Your task to perform on an android device: open app "Upside-Cash back on gas & food" (install if not already installed), go to login, and select forgot password Image 0: 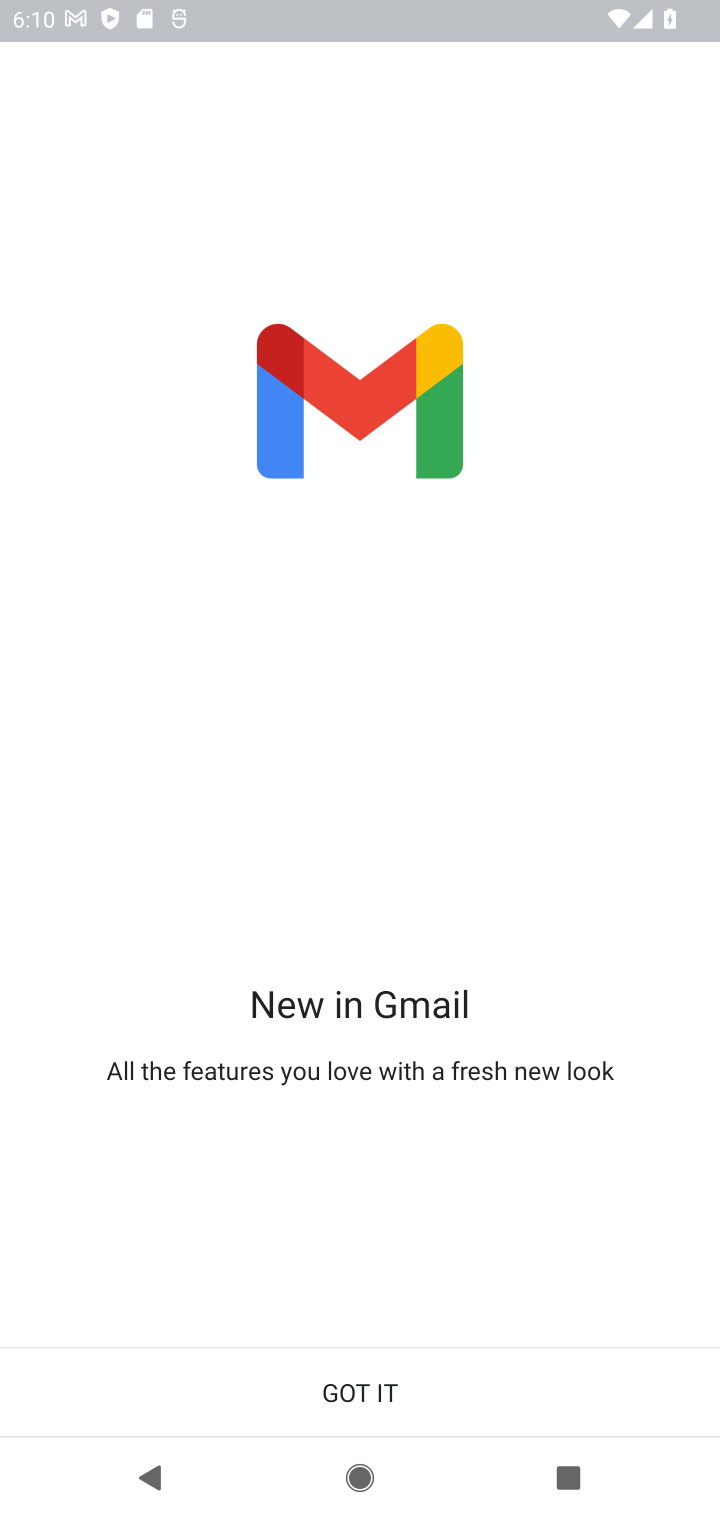
Step 0: press home button
Your task to perform on an android device: open app "Upside-Cash back on gas & food" (install if not already installed), go to login, and select forgot password Image 1: 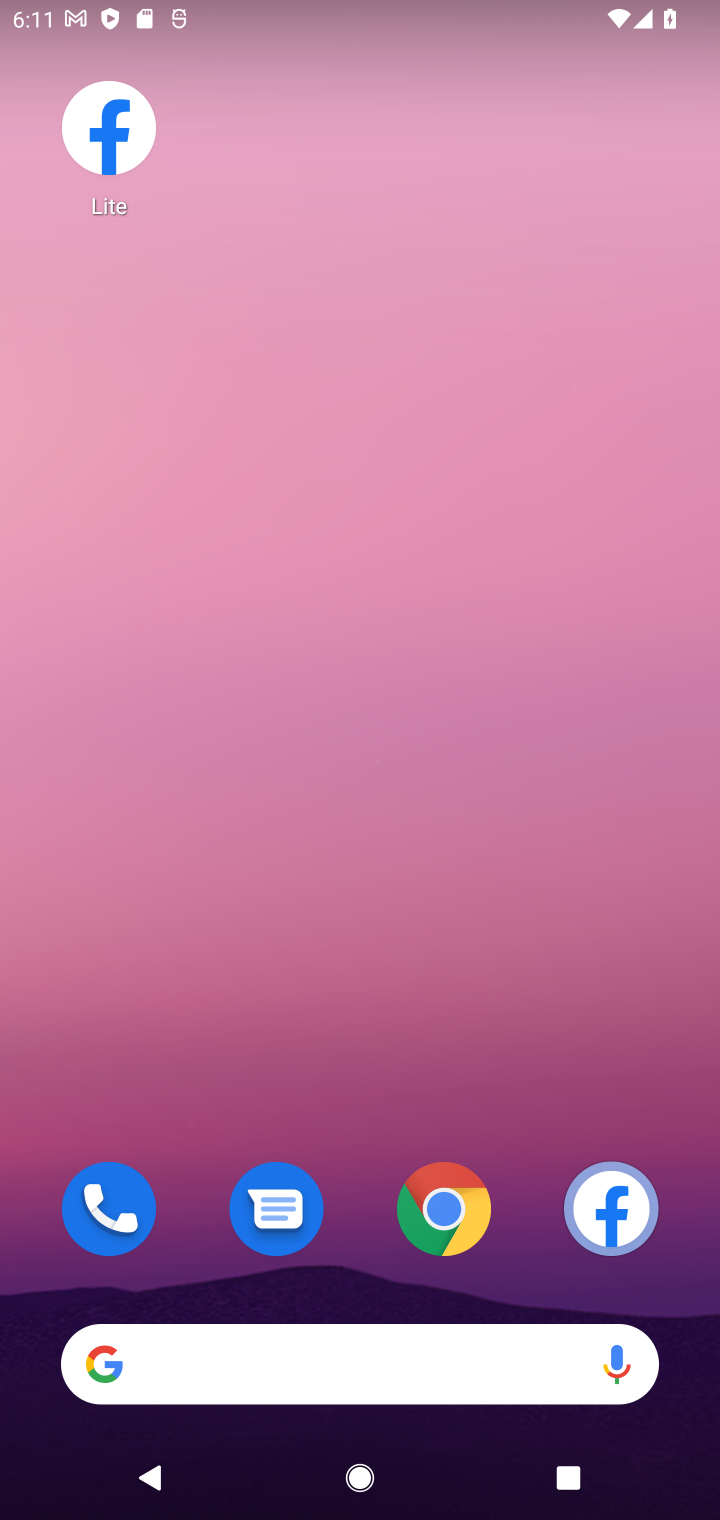
Step 1: drag from (551, 1112) to (537, 266)
Your task to perform on an android device: open app "Upside-Cash back on gas & food" (install if not already installed), go to login, and select forgot password Image 2: 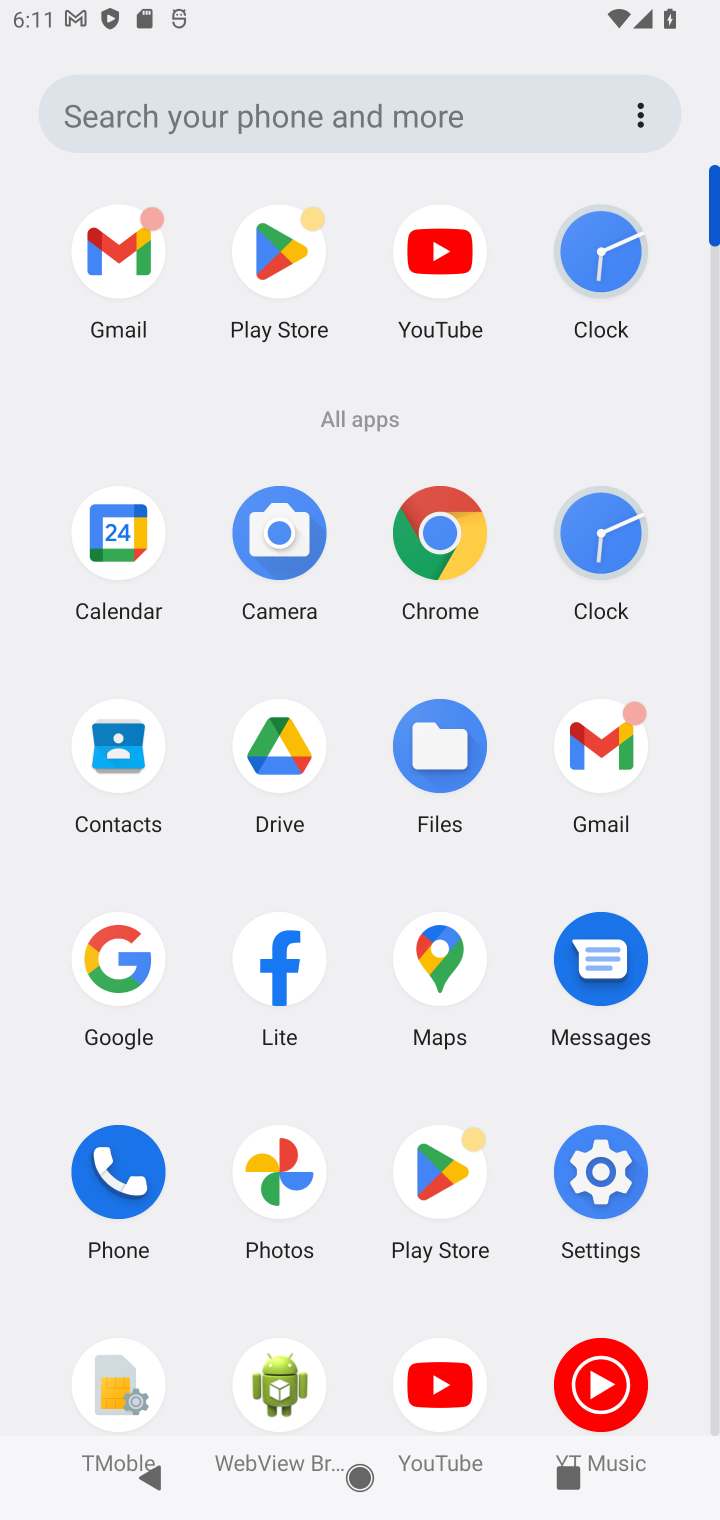
Step 2: click (252, 263)
Your task to perform on an android device: open app "Upside-Cash back on gas & food" (install if not already installed), go to login, and select forgot password Image 3: 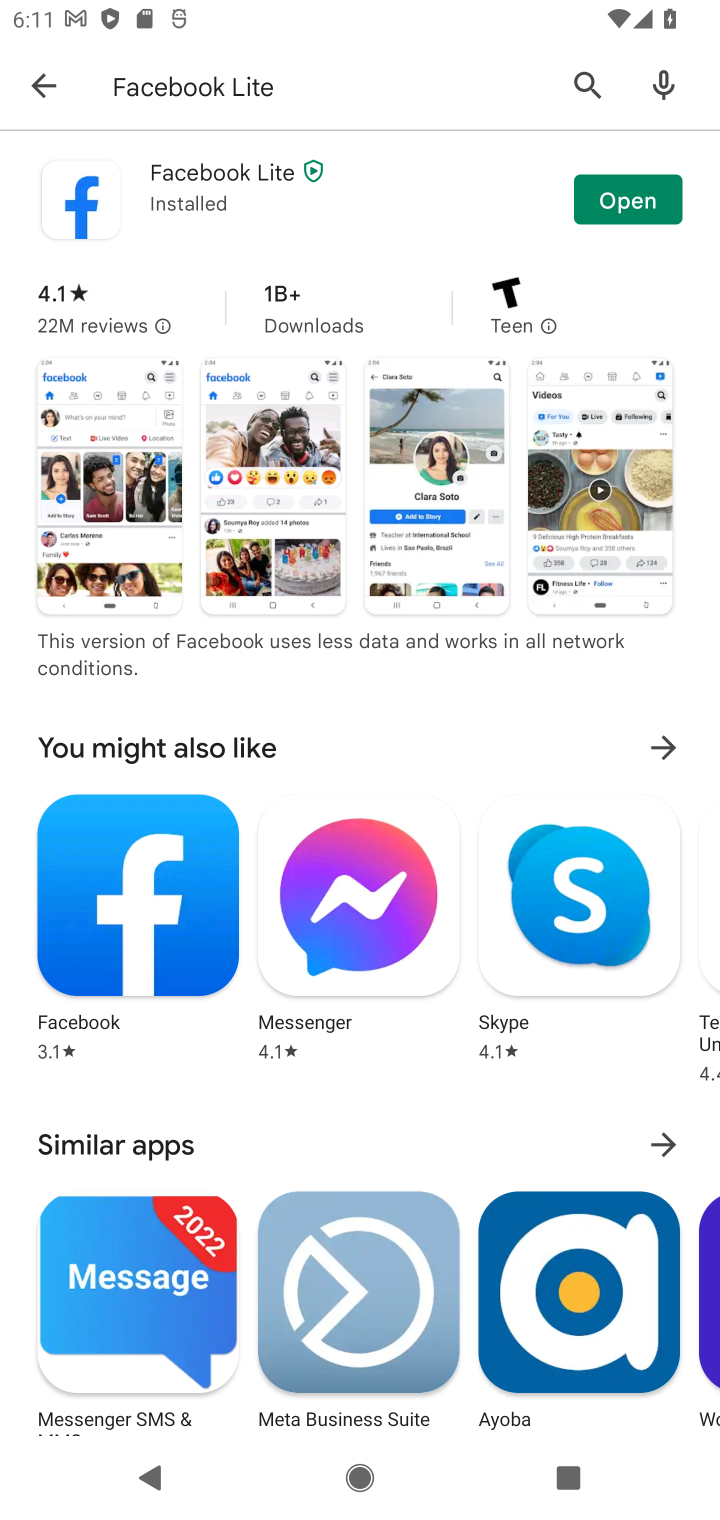
Step 3: press back button
Your task to perform on an android device: open app "Upside-Cash back on gas & food" (install if not already installed), go to login, and select forgot password Image 4: 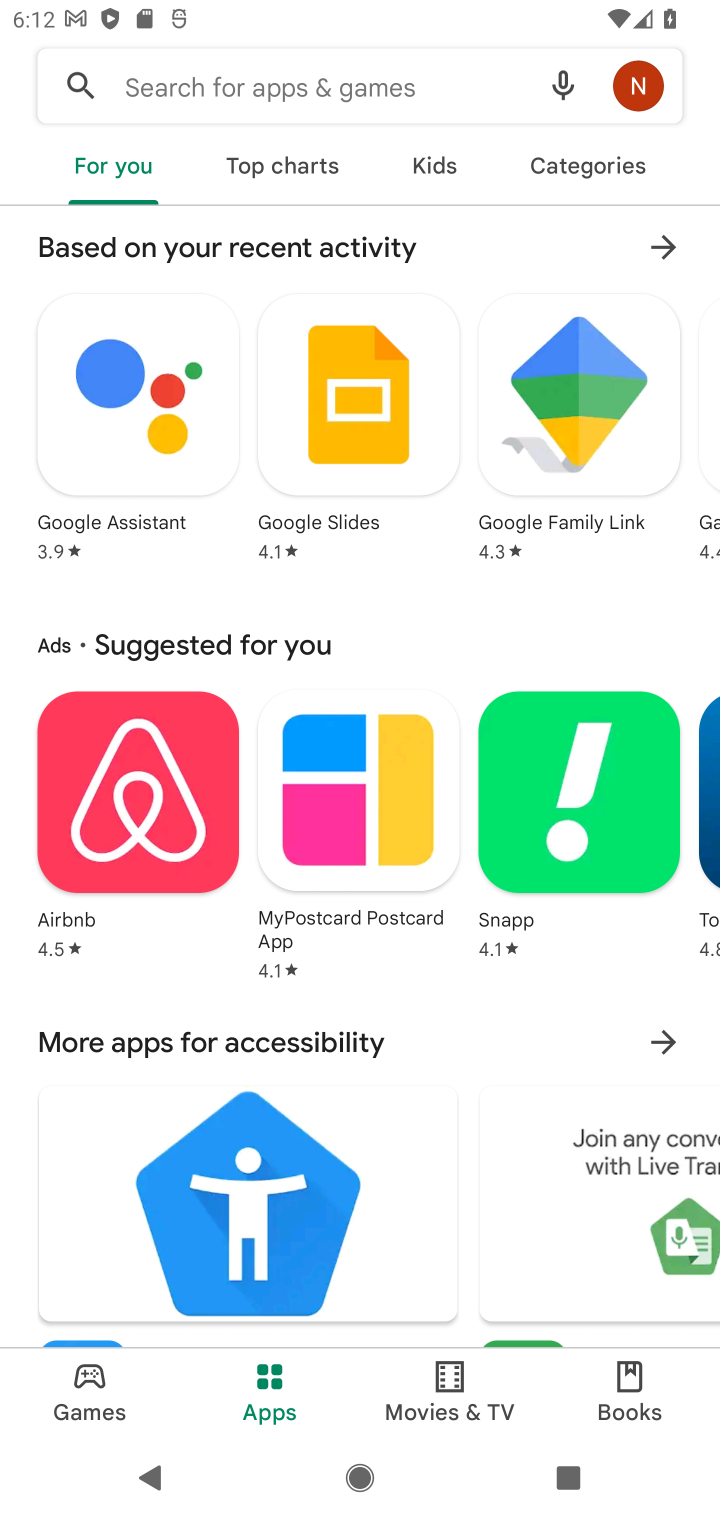
Step 4: type ""Upside-Cash back on gas & food"
Your task to perform on an android device: open app "Upside-Cash back on gas & food" (install if not already installed), go to login, and select forgot password Image 5: 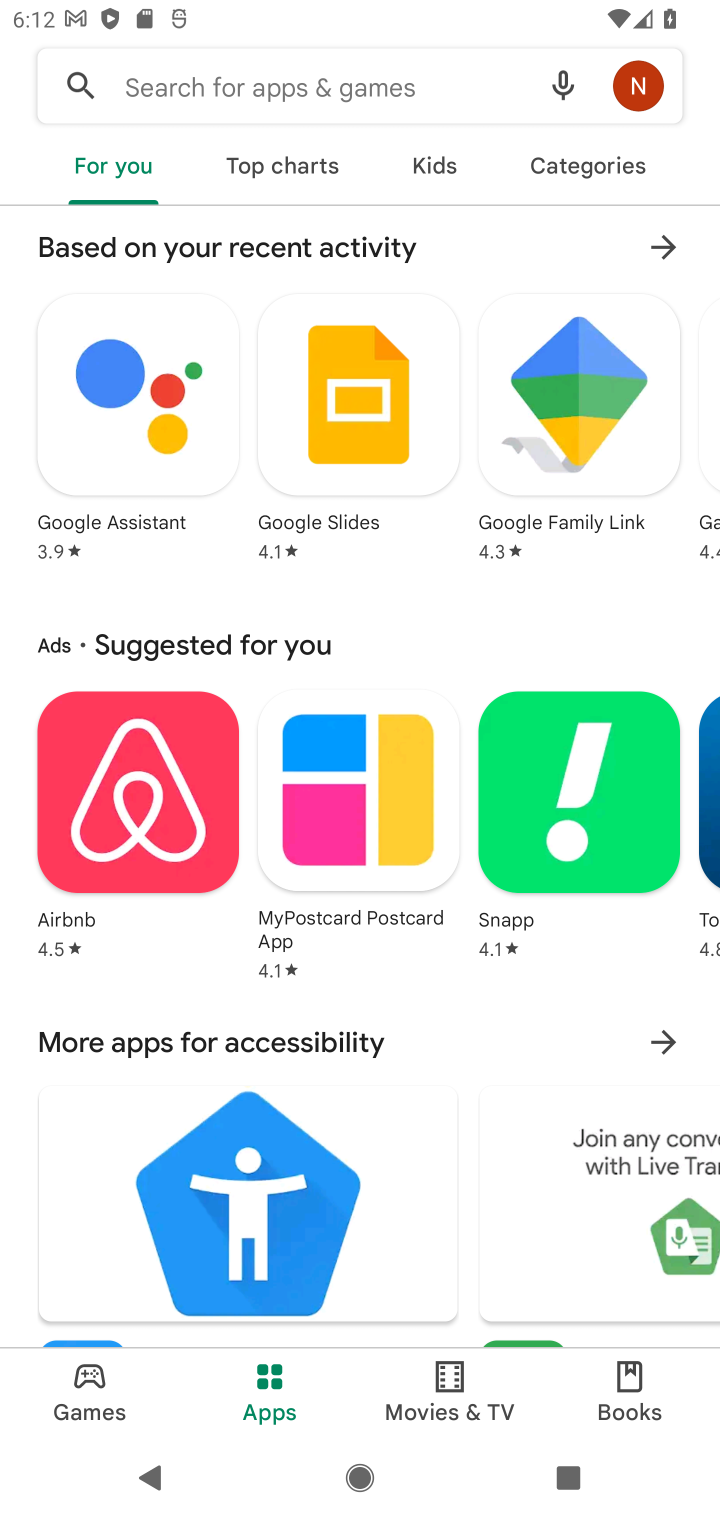
Step 5: press enter
Your task to perform on an android device: open app "Upside-Cash back on gas & food" (install if not already installed), go to login, and select forgot password Image 6: 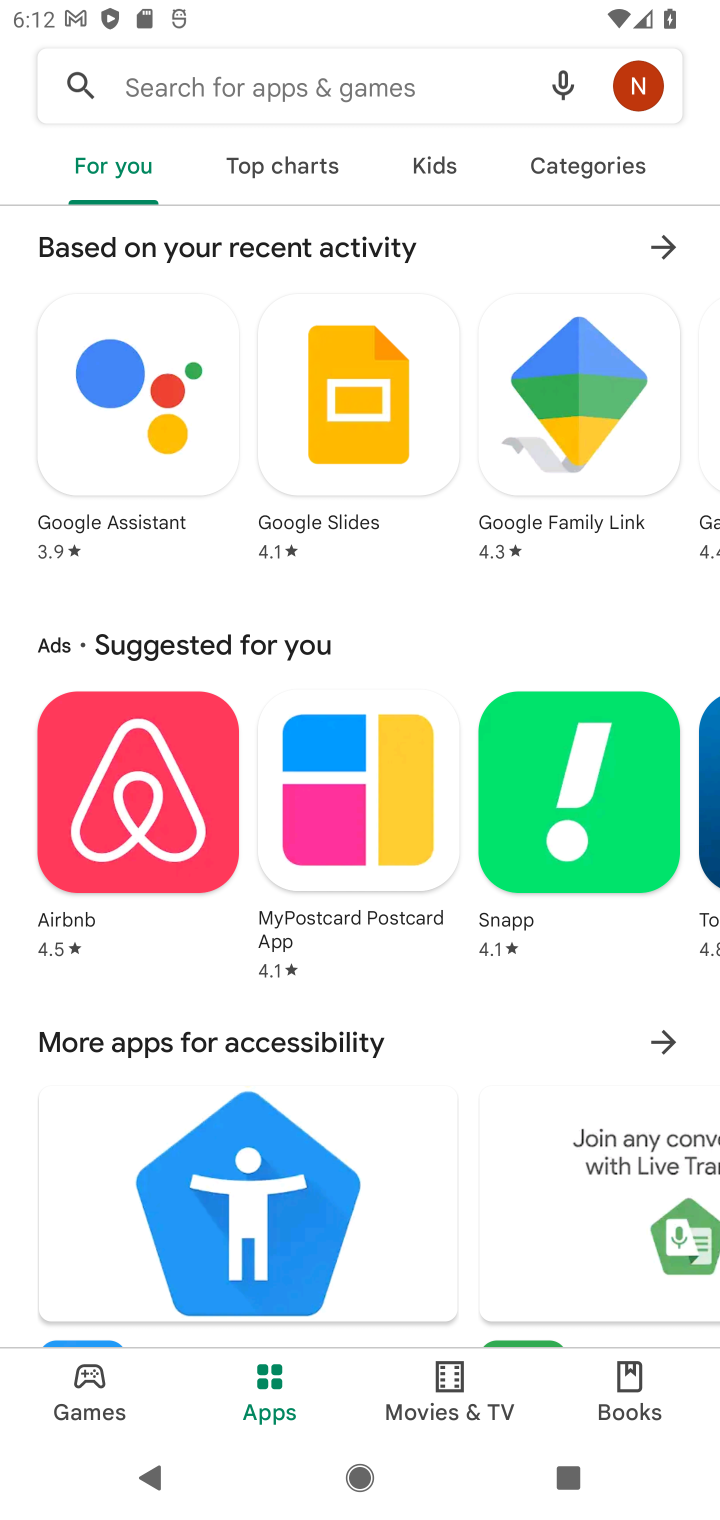
Step 6: click (197, 105)
Your task to perform on an android device: open app "Upside-Cash back on gas & food" (install if not already installed), go to login, and select forgot password Image 7: 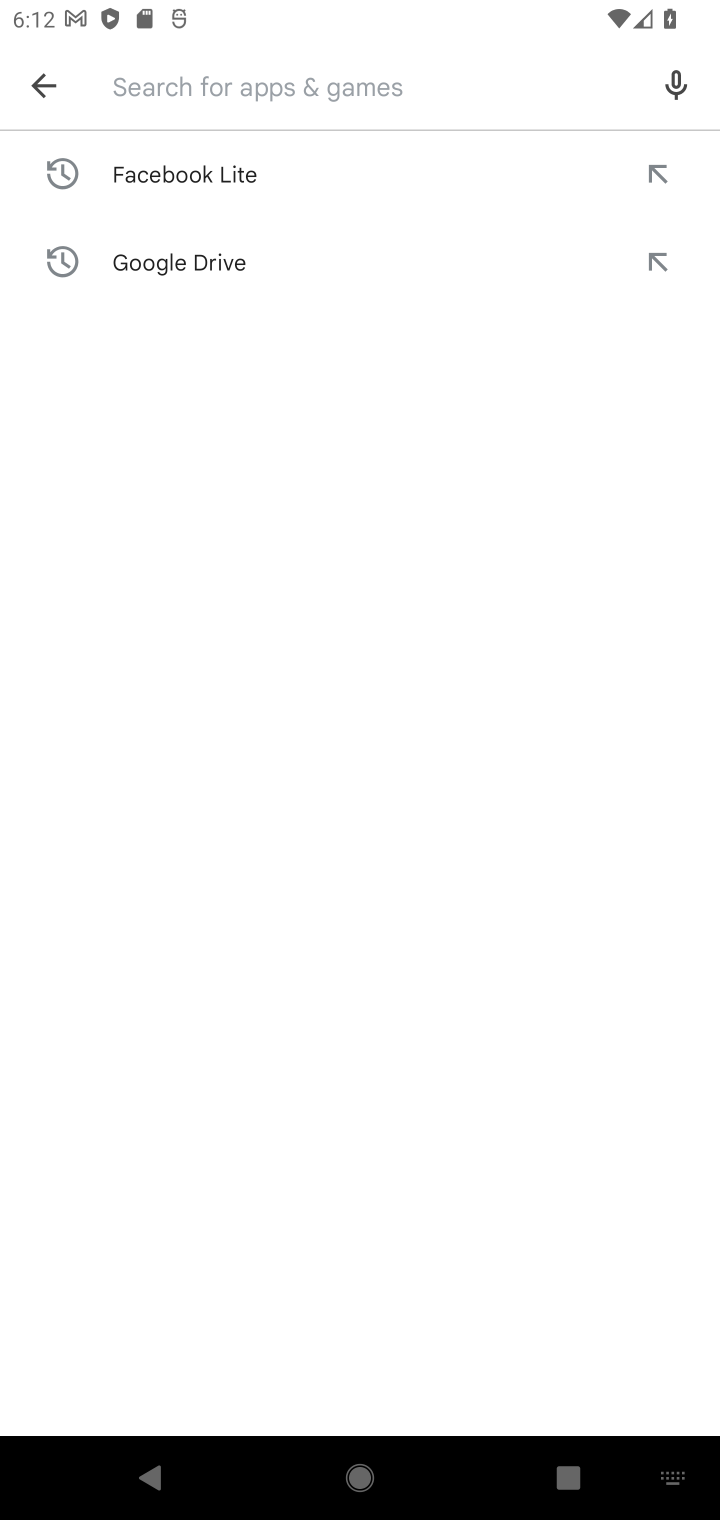
Step 7: type "Upside-Cash back on gas & food"
Your task to perform on an android device: open app "Upside-Cash back on gas & food" (install if not already installed), go to login, and select forgot password Image 8: 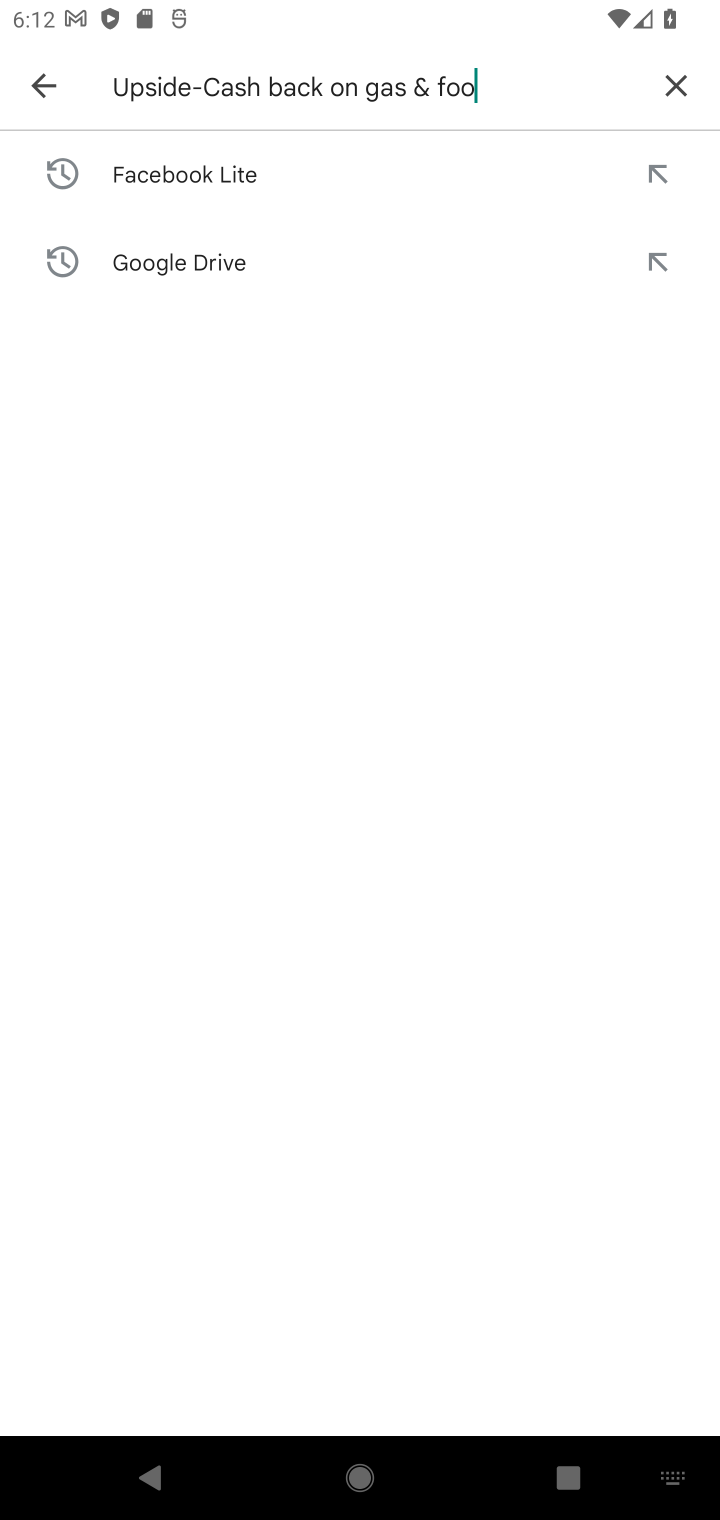
Step 8: press enter
Your task to perform on an android device: open app "Upside-Cash back on gas & food" (install if not already installed), go to login, and select forgot password Image 9: 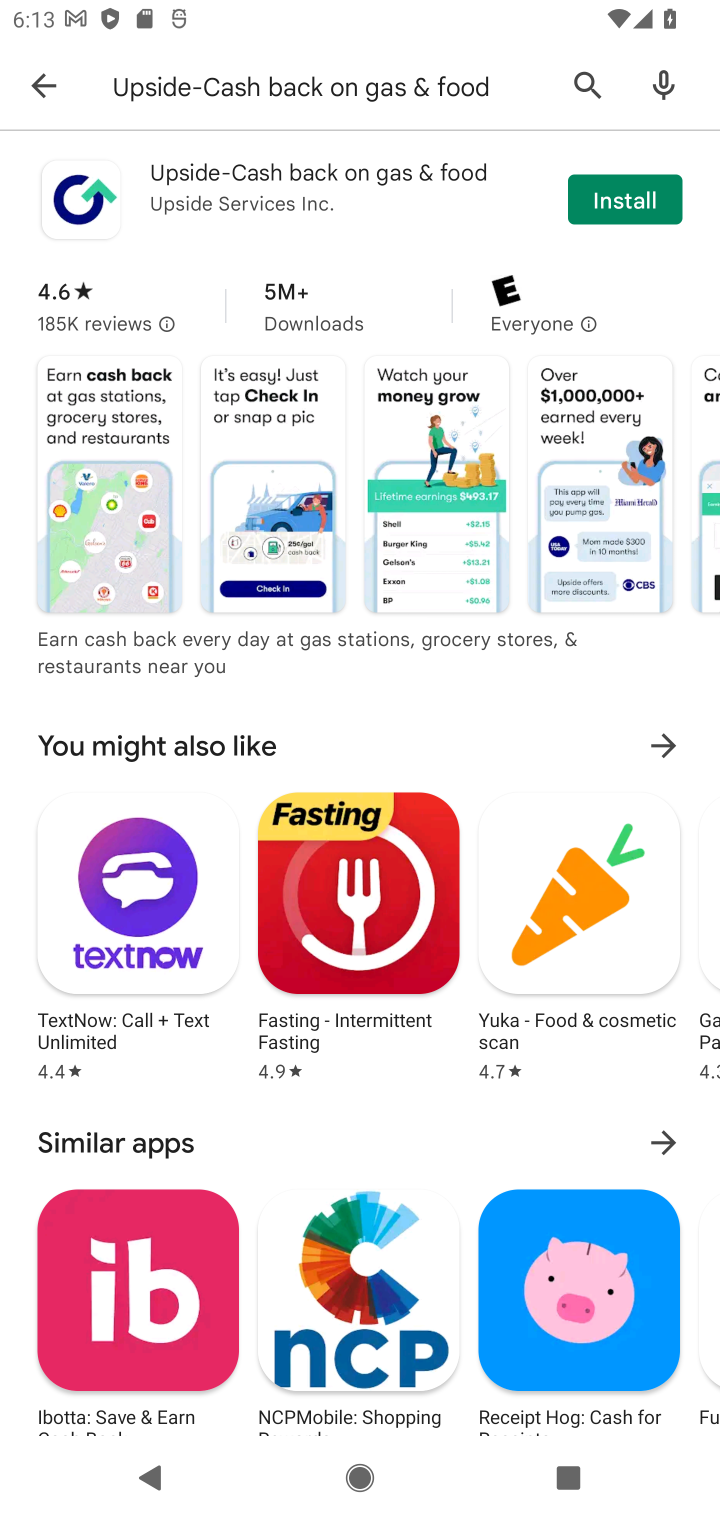
Step 9: click (636, 198)
Your task to perform on an android device: open app "Upside-Cash back on gas & food" (install if not already installed), go to login, and select forgot password Image 10: 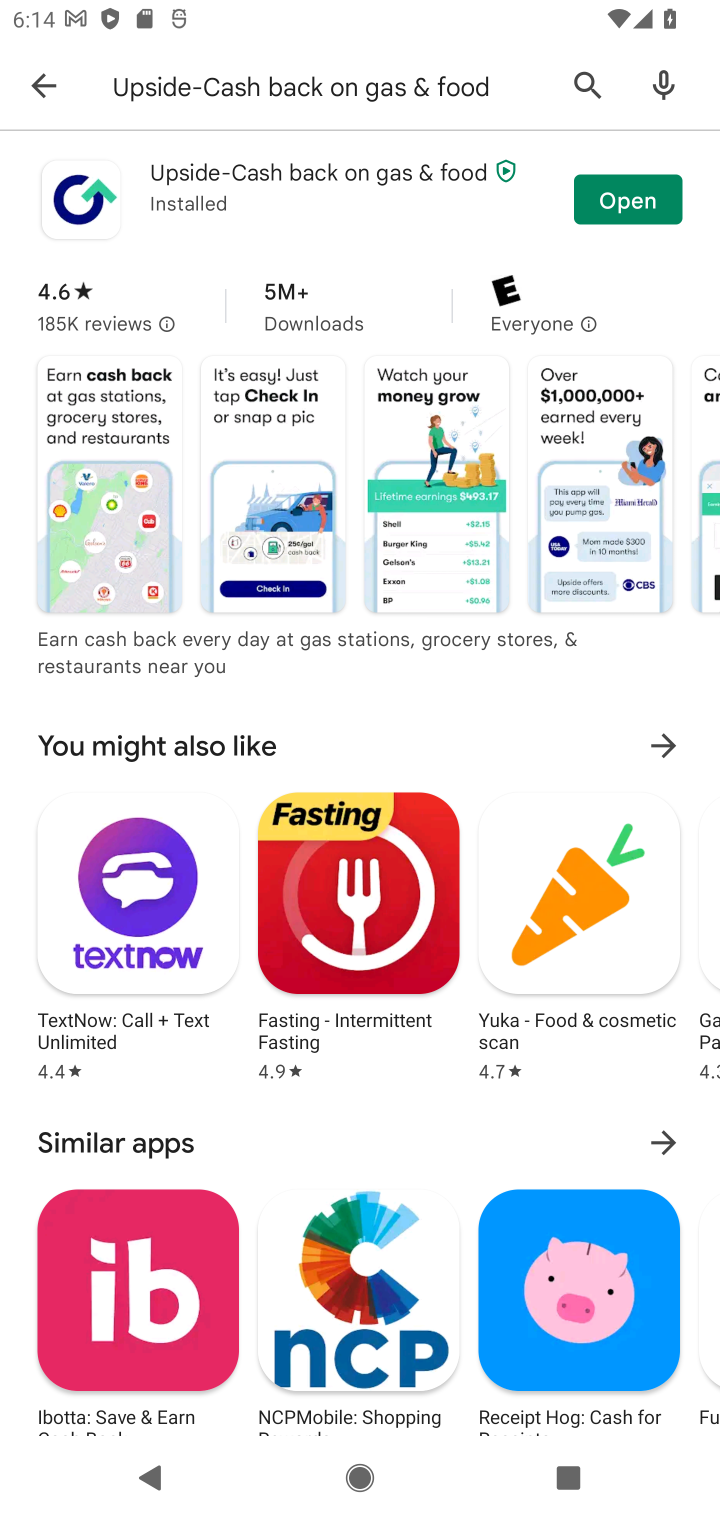
Step 10: click (593, 202)
Your task to perform on an android device: open app "Upside-Cash back on gas & food" (install if not already installed), go to login, and select forgot password Image 11: 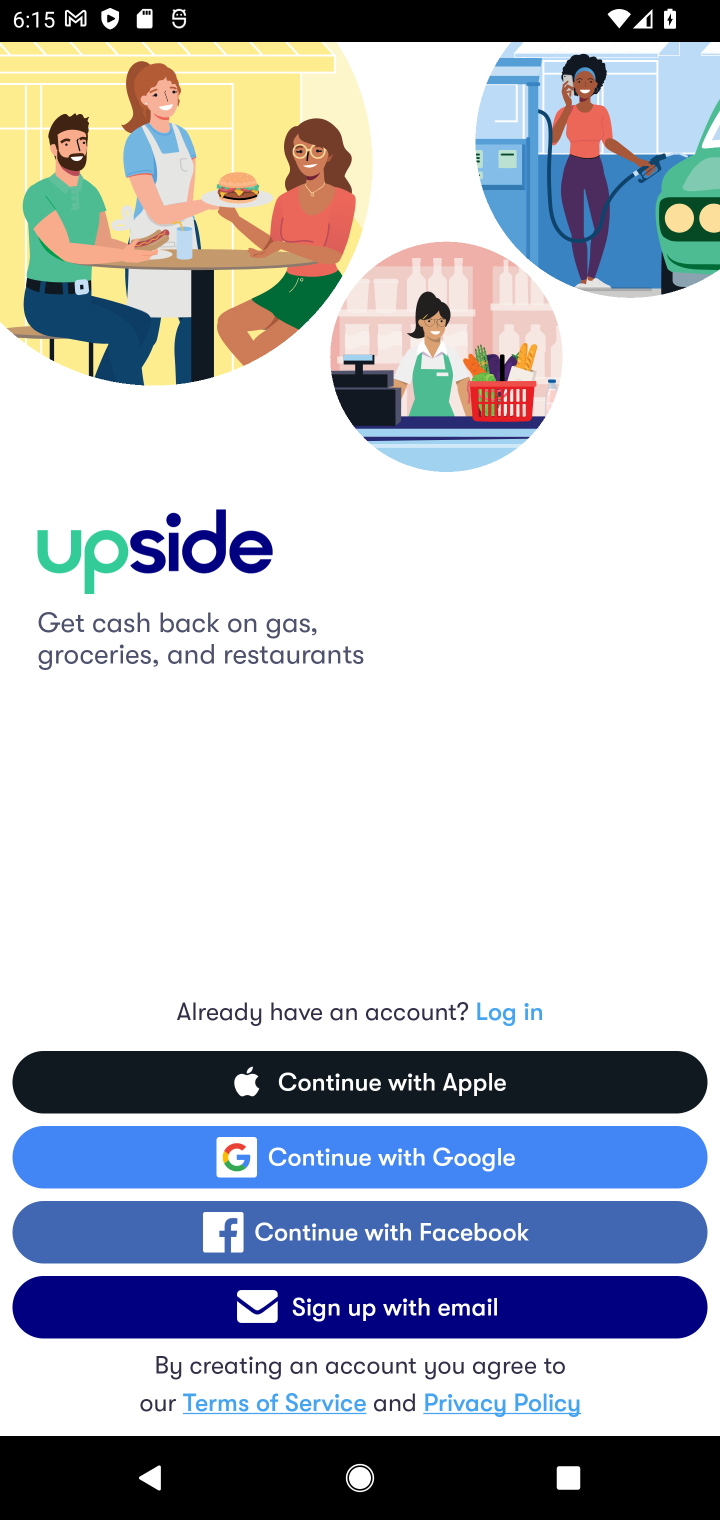
Step 11: click (367, 1239)
Your task to perform on an android device: open app "Upside-Cash back on gas & food" (install if not already installed), go to login, and select forgot password Image 12: 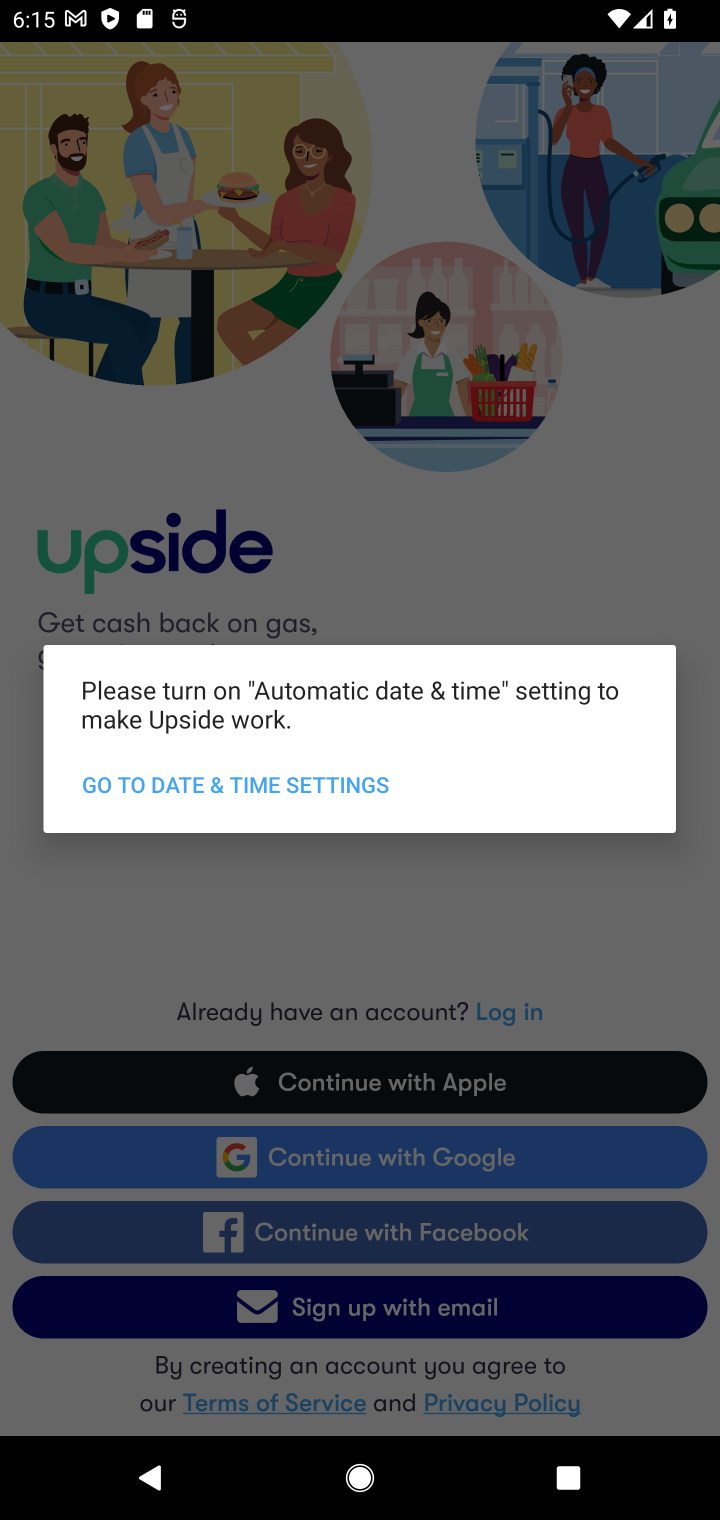
Step 12: click (253, 789)
Your task to perform on an android device: open app "Upside-Cash back on gas & food" (install if not already installed), go to login, and select forgot password Image 13: 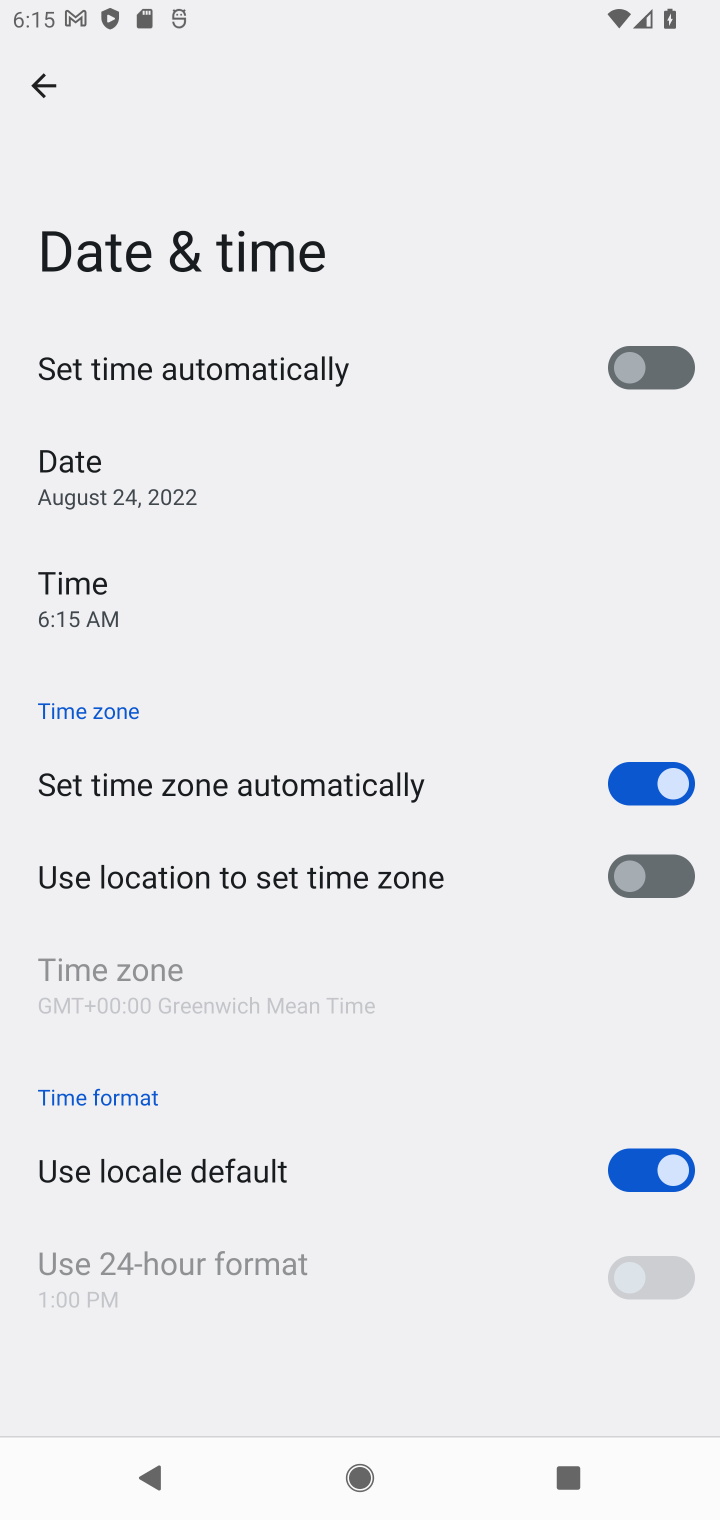
Step 13: press back button
Your task to perform on an android device: open app "Upside-Cash back on gas & food" (install if not already installed), go to login, and select forgot password Image 14: 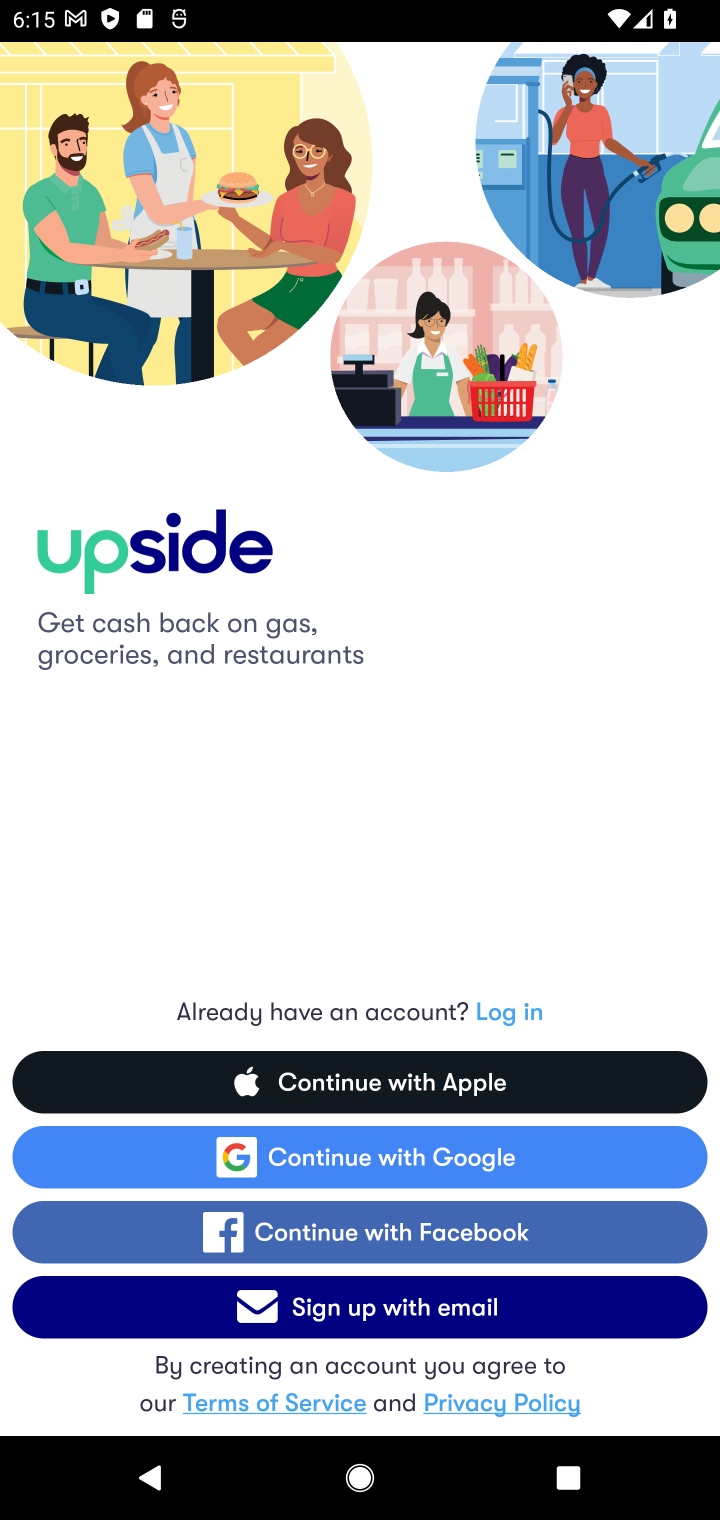
Step 14: click (448, 1246)
Your task to perform on an android device: open app "Upside-Cash back on gas & food" (install if not already installed), go to login, and select forgot password Image 15: 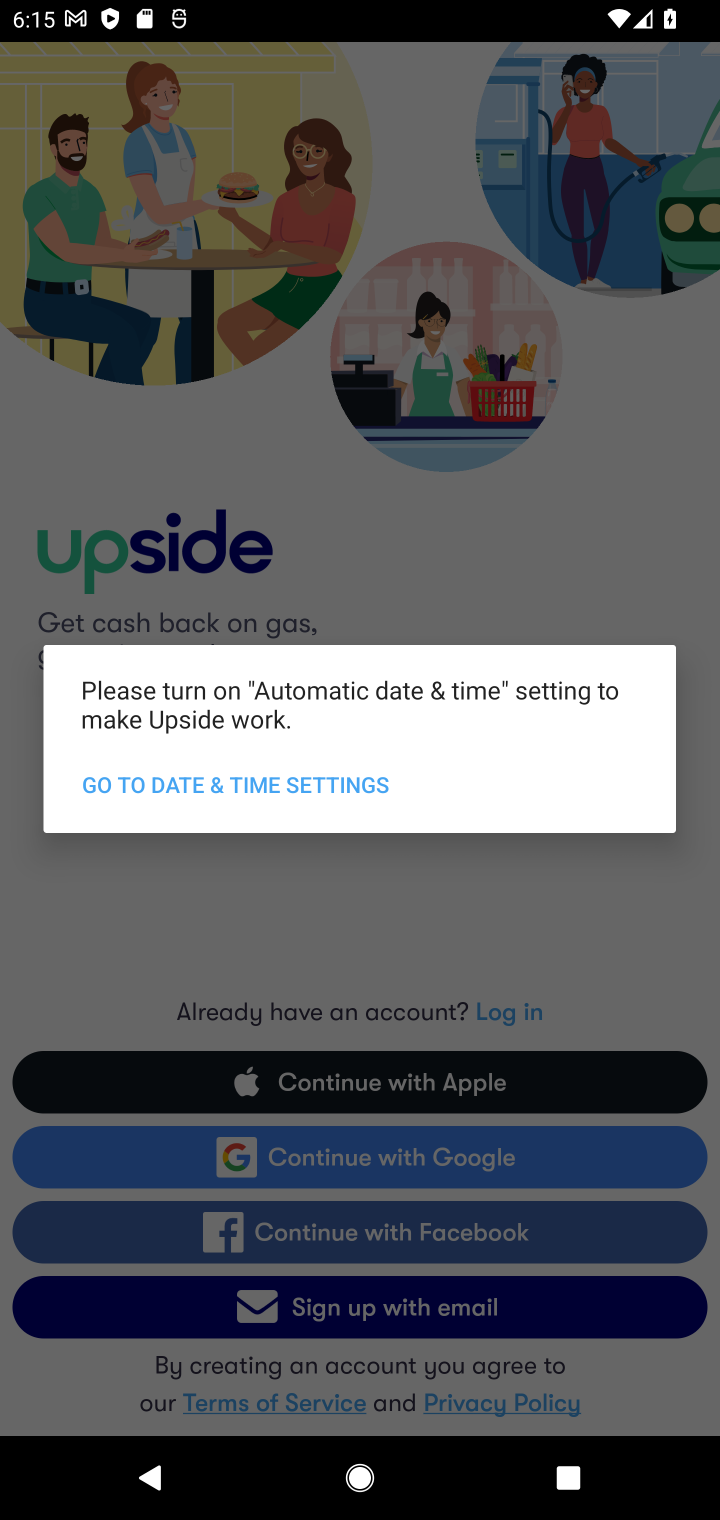
Step 15: press back button
Your task to perform on an android device: open app "Upside-Cash back on gas & food" (install if not already installed), go to login, and select forgot password Image 16: 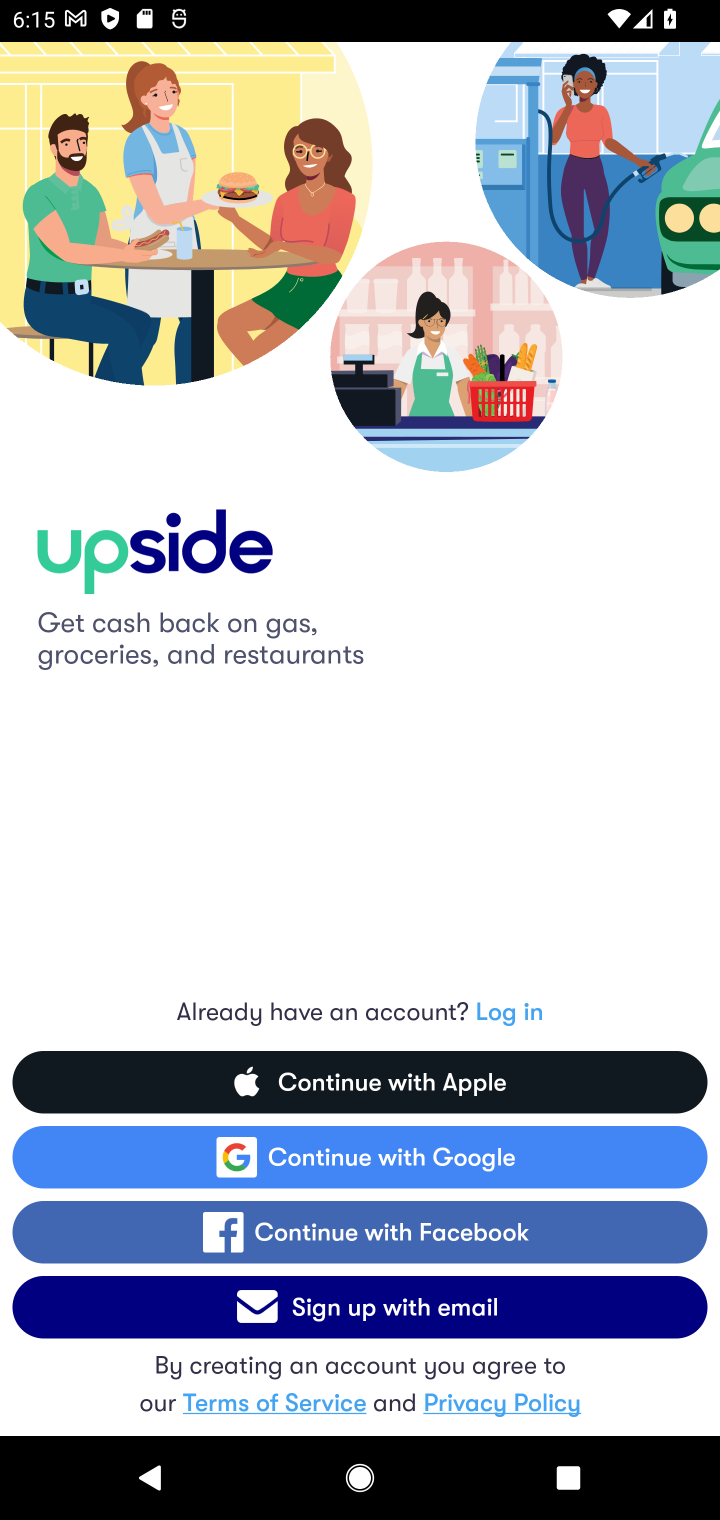
Step 16: click (538, 1144)
Your task to perform on an android device: open app "Upside-Cash back on gas & food" (install if not already installed), go to login, and select forgot password Image 17: 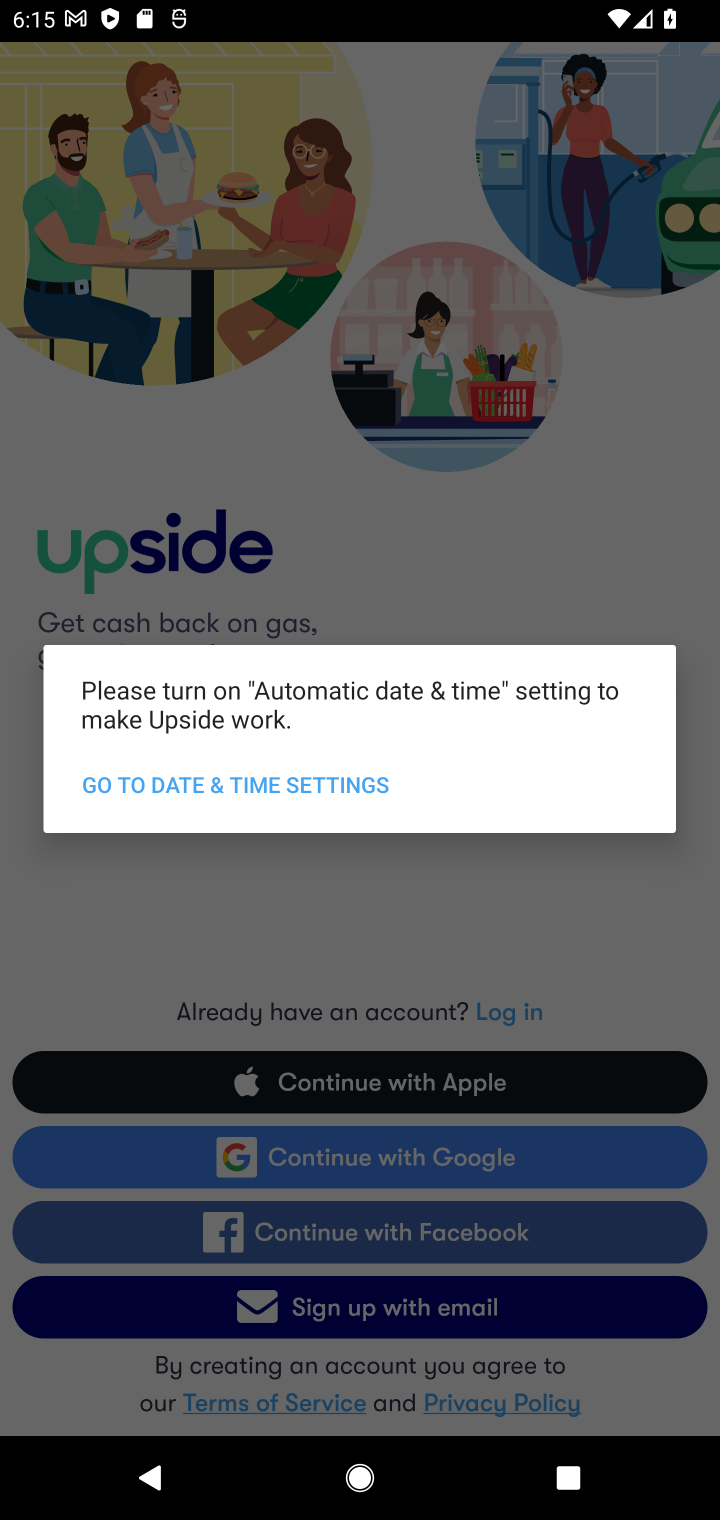
Step 17: click (348, 805)
Your task to perform on an android device: open app "Upside-Cash back on gas & food" (install if not already installed), go to login, and select forgot password Image 18: 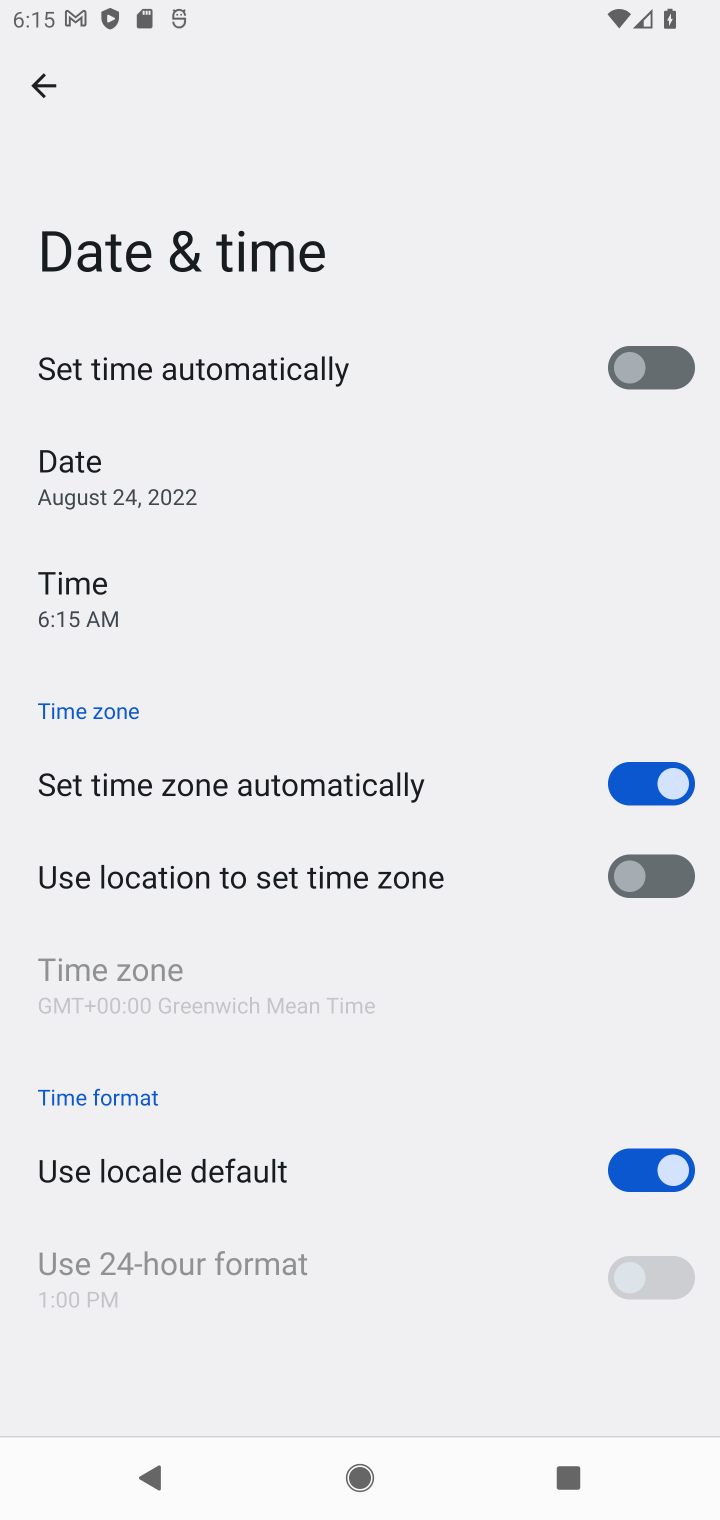
Step 18: click (615, 366)
Your task to perform on an android device: open app "Upside-Cash back on gas & food" (install if not already installed), go to login, and select forgot password Image 19: 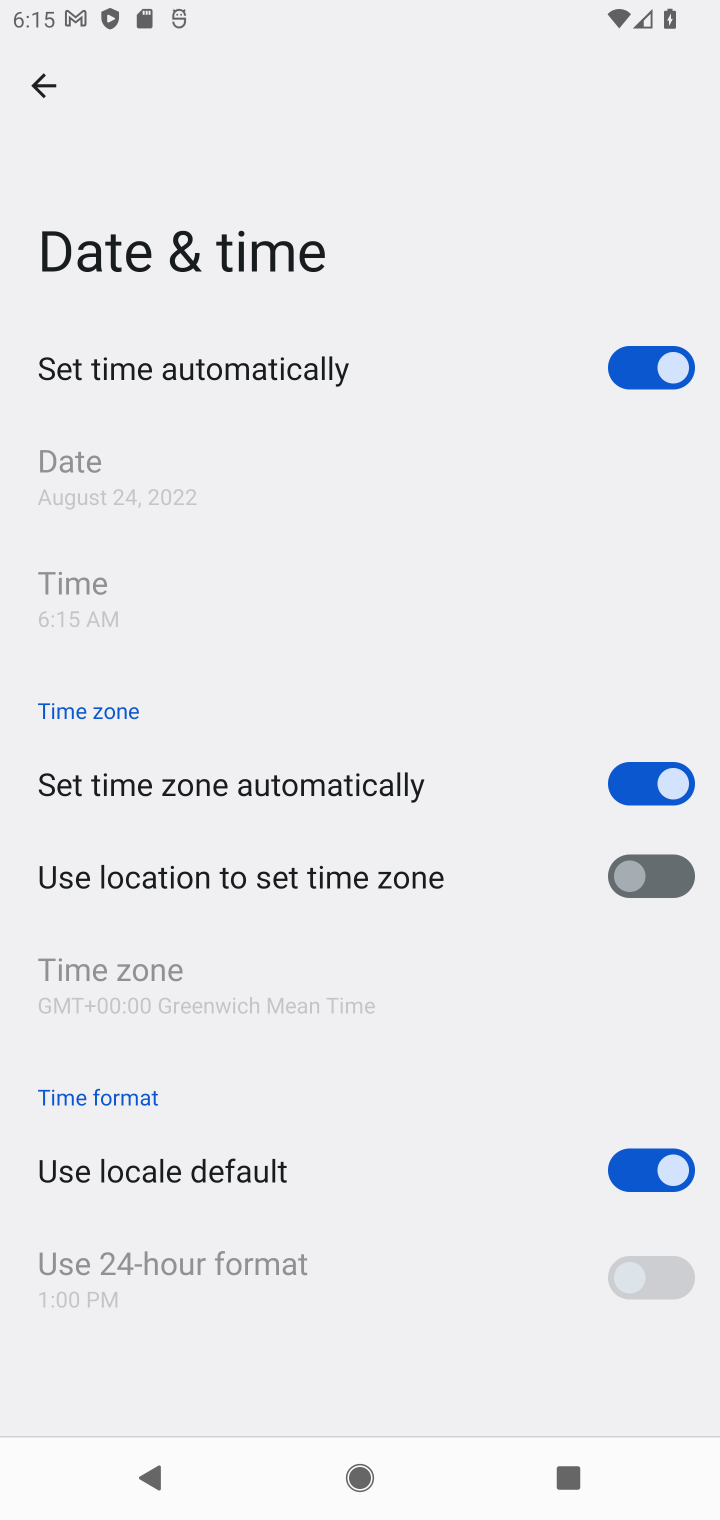
Step 19: press back button
Your task to perform on an android device: open app "Upside-Cash back on gas & food" (install if not already installed), go to login, and select forgot password Image 20: 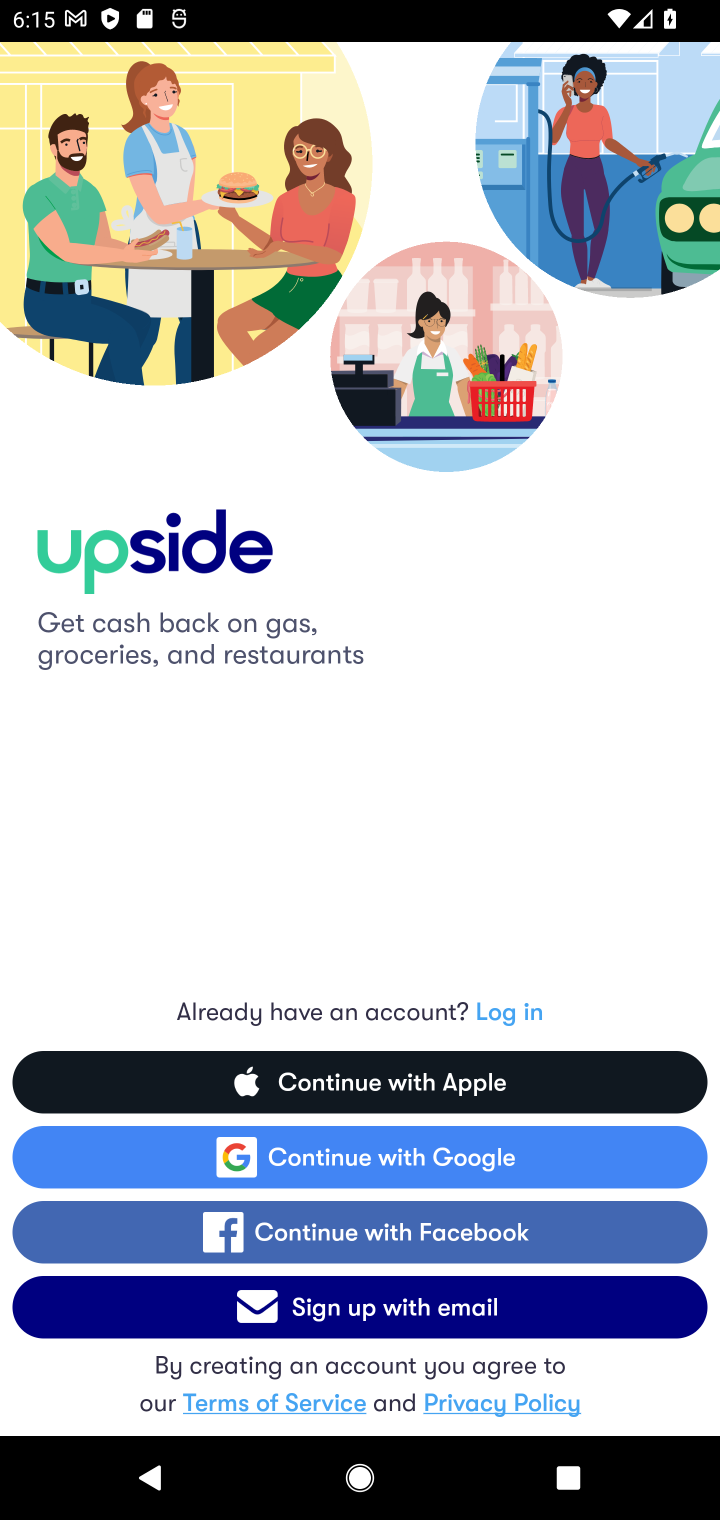
Step 20: click (540, 1241)
Your task to perform on an android device: open app "Upside-Cash back on gas & food" (install if not already installed), go to login, and select forgot password Image 21: 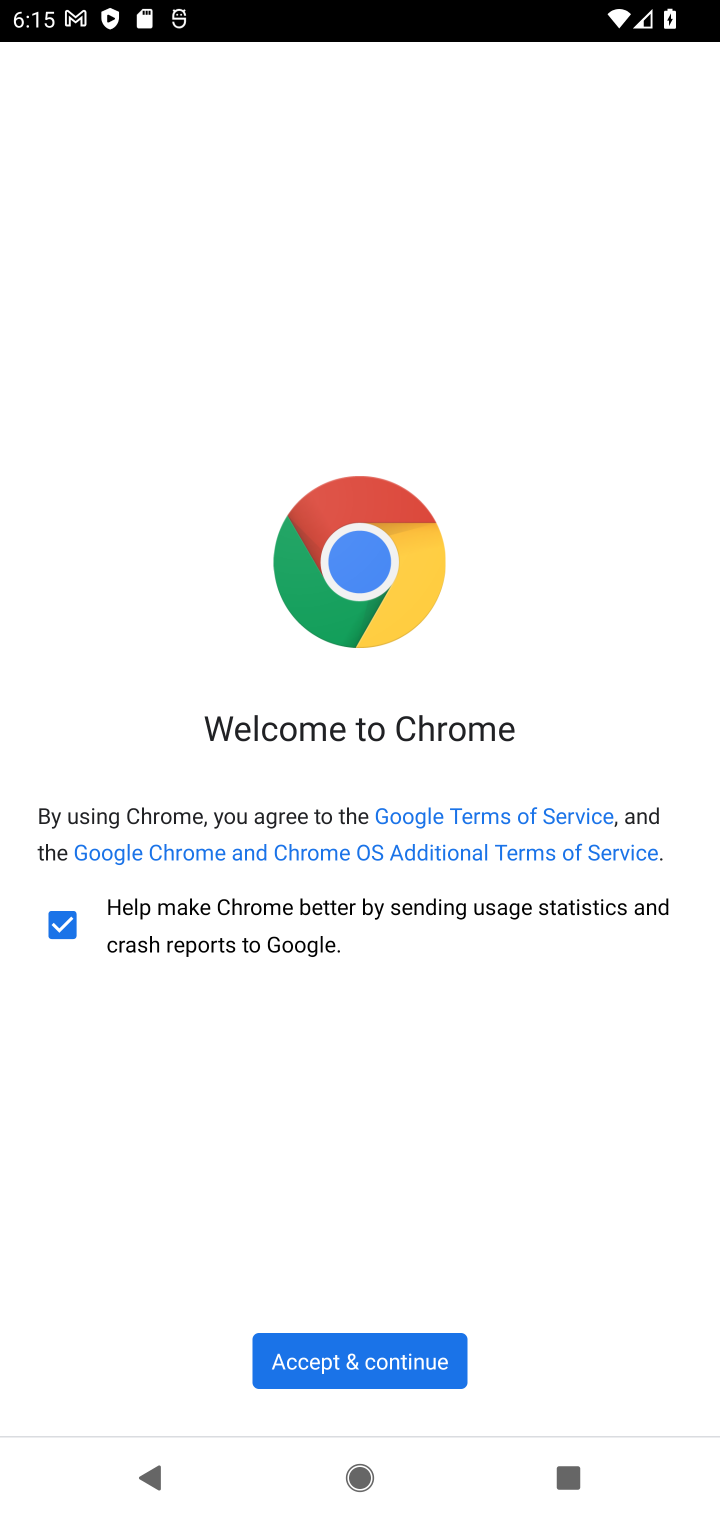
Step 21: click (452, 1359)
Your task to perform on an android device: open app "Upside-Cash back on gas & food" (install if not already installed), go to login, and select forgot password Image 22: 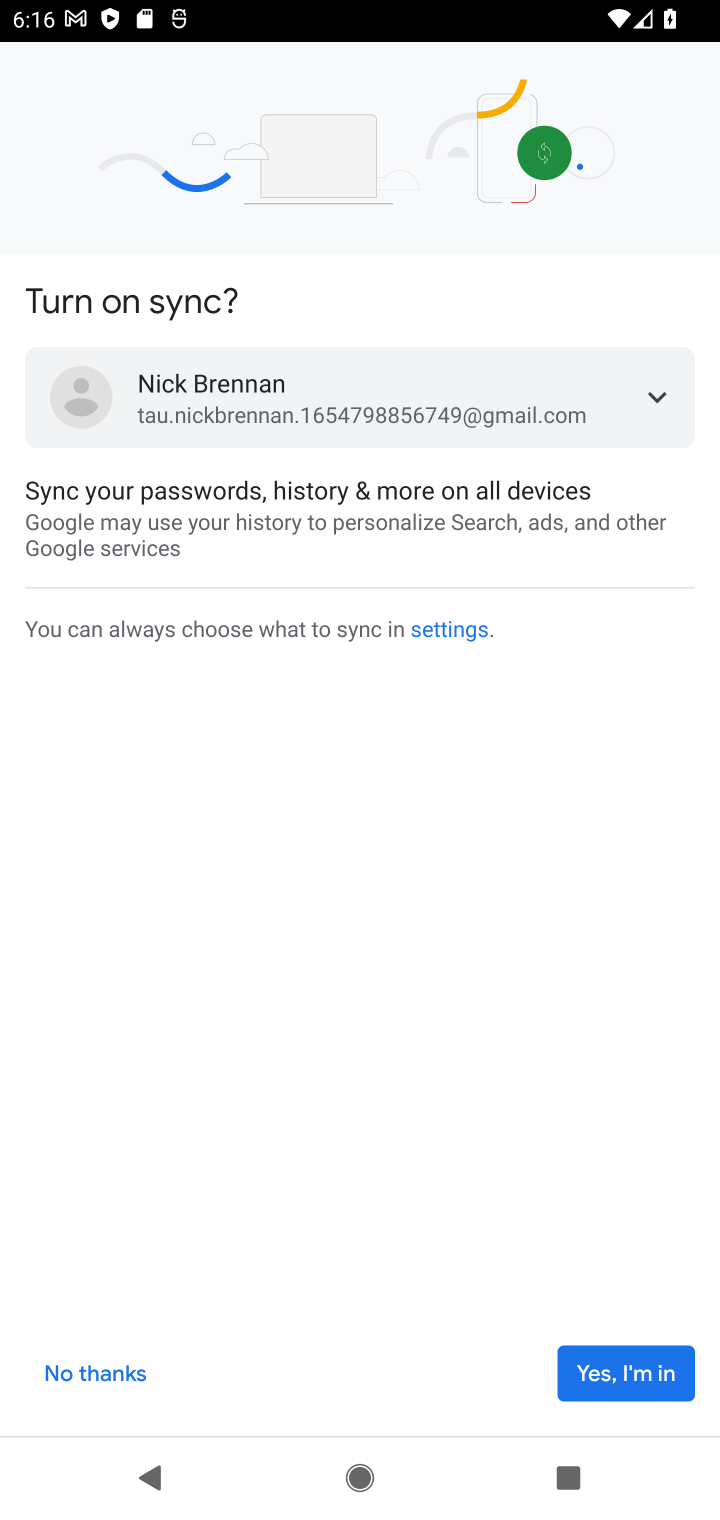
Step 22: click (617, 1376)
Your task to perform on an android device: open app "Upside-Cash back on gas & food" (install if not already installed), go to login, and select forgot password Image 23: 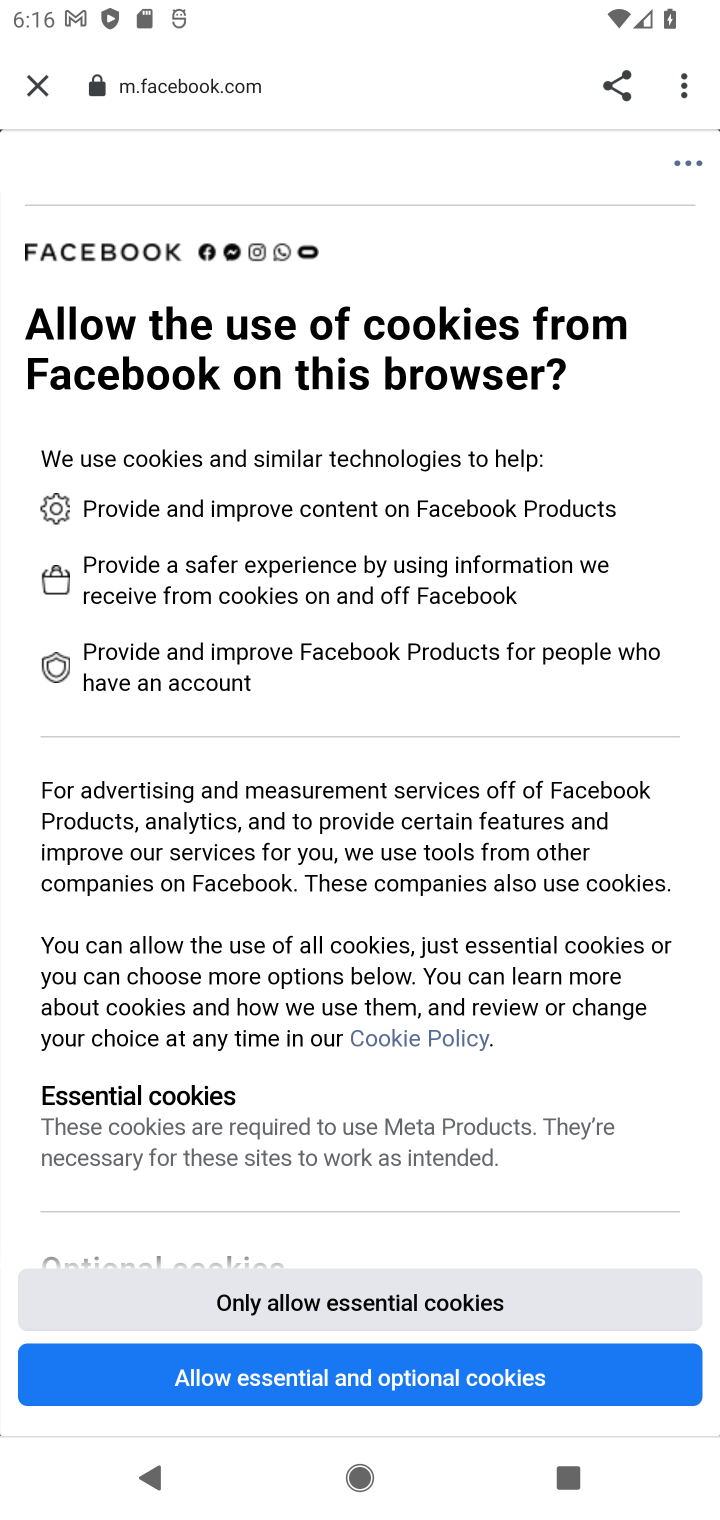
Step 23: click (469, 1379)
Your task to perform on an android device: open app "Upside-Cash back on gas & food" (install if not already installed), go to login, and select forgot password Image 24: 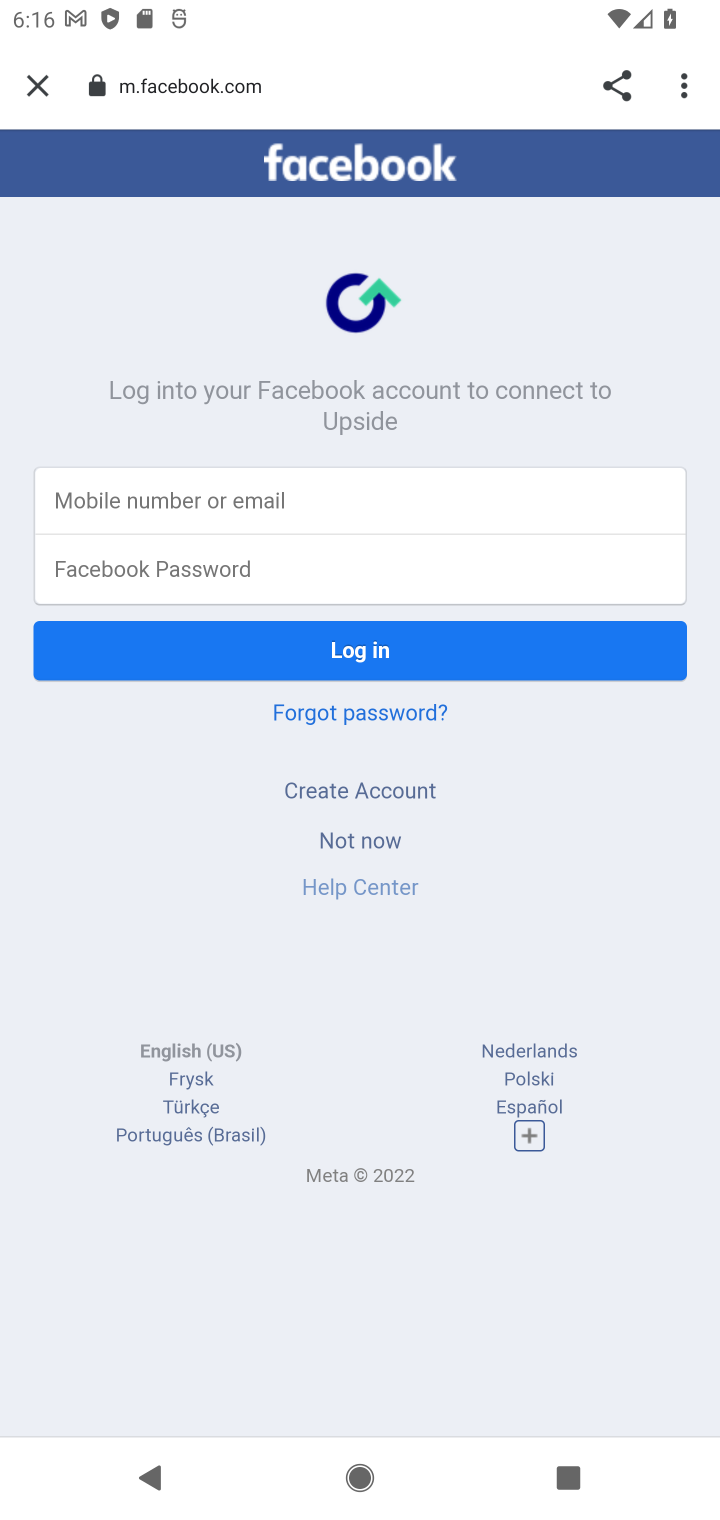
Step 24: click (330, 721)
Your task to perform on an android device: open app "Upside-Cash back on gas & food" (install if not already installed), go to login, and select forgot password Image 25: 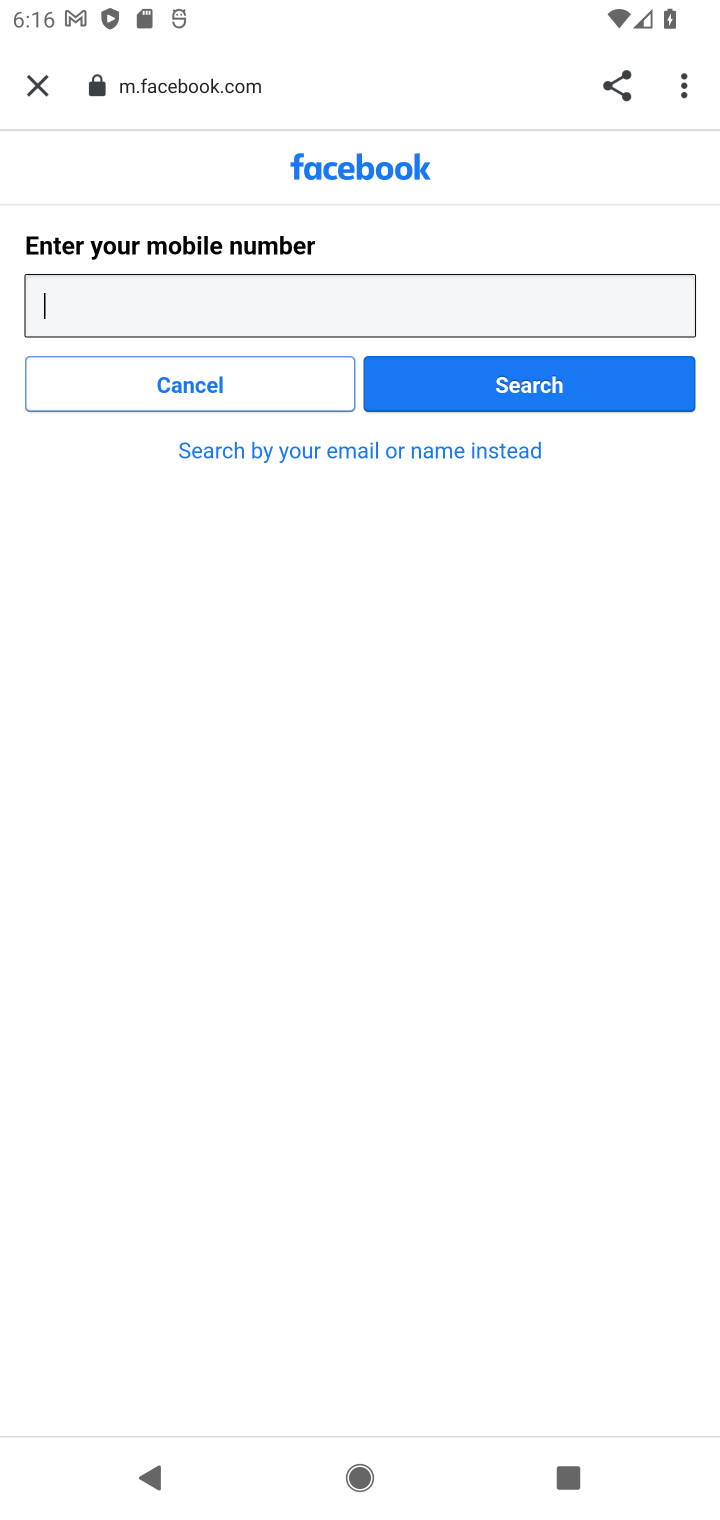
Step 25: task complete